Your task to perform on an android device: Go to Google Image 0: 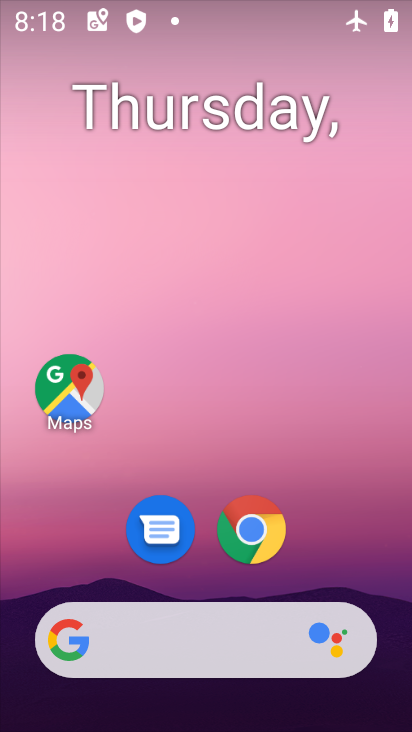
Step 0: drag from (193, 633) to (302, 108)
Your task to perform on an android device: Go to Google Image 1: 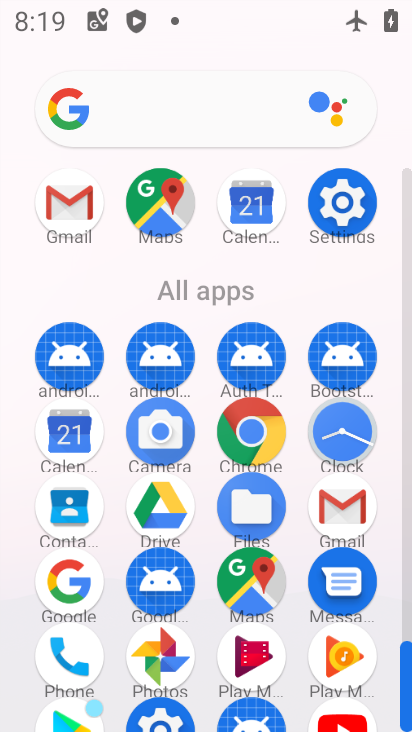
Step 1: click (80, 583)
Your task to perform on an android device: Go to Google Image 2: 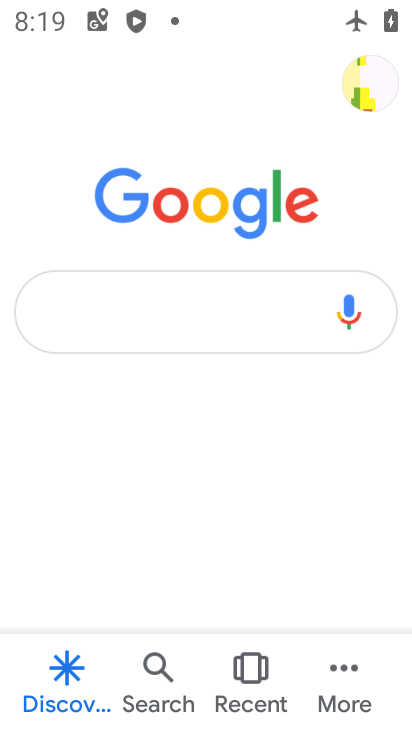
Step 2: task complete